Your task to perform on an android device: When is my next appointment? Image 0: 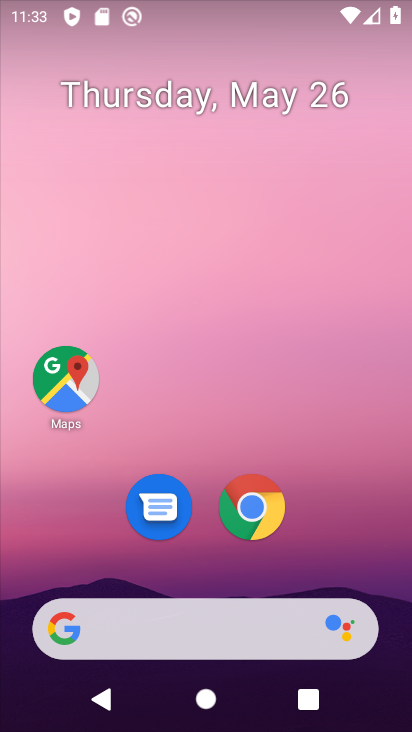
Step 0: drag from (351, 490) to (300, 56)
Your task to perform on an android device: When is my next appointment? Image 1: 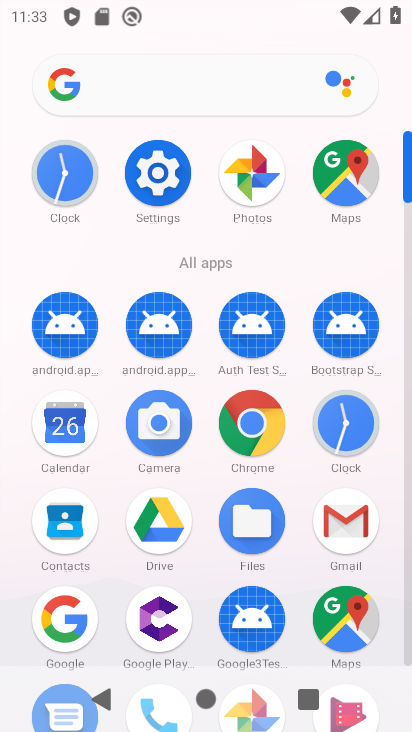
Step 1: click (70, 415)
Your task to perform on an android device: When is my next appointment? Image 2: 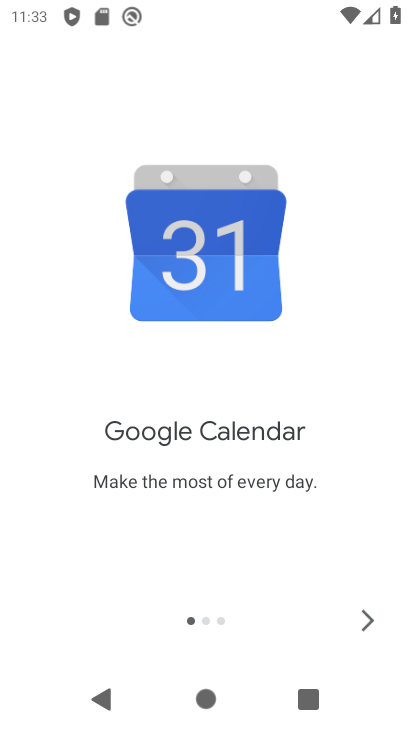
Step 2: click (371, 626)
Your task to perform on an android device: When is my next appointment? Image 3: 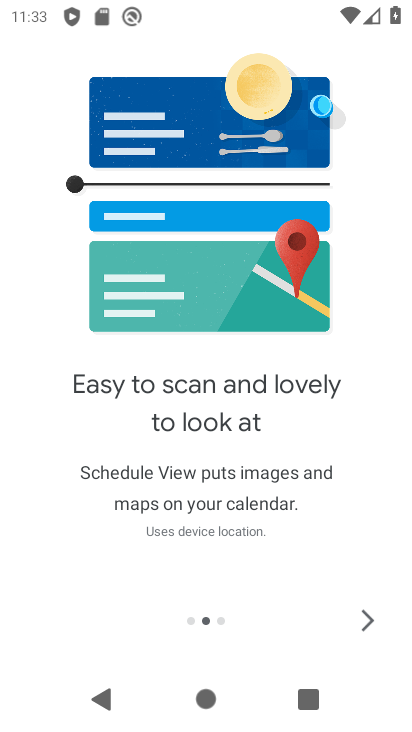
Step 3: click (365, 620)
Your task to perform on an android device: When is my next appointment? Image 4: 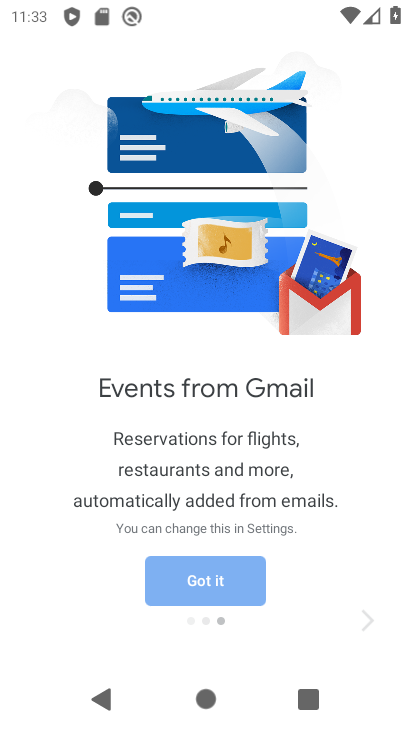
Step 4: click (365, 620)
Your task to perform on an android device: When is my next appointment? Image 5: 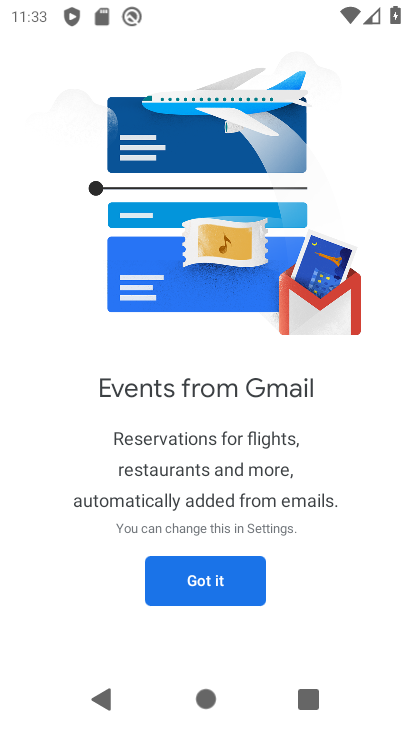
Step 5: click (365, 620)
Your task to perform on an android device: When is my next appointment? Image 6: 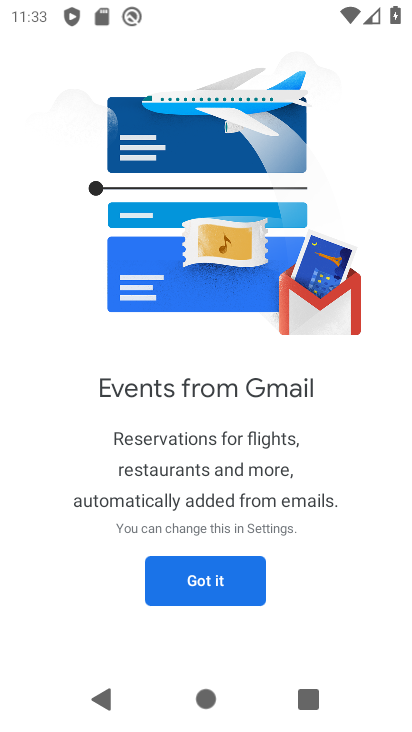
Step 6: click (206, 583)
Your task to perform on an android device: When is my next appointment? Image 7: 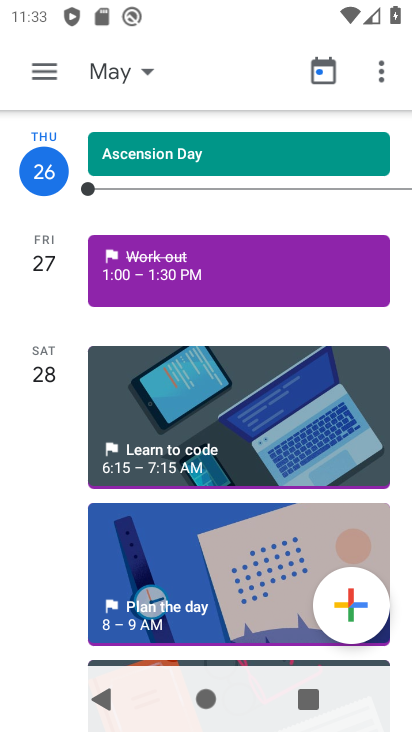
Step 7: click (101, 71)
Your task to perform on an android device: When is my next appointment? Image 8: 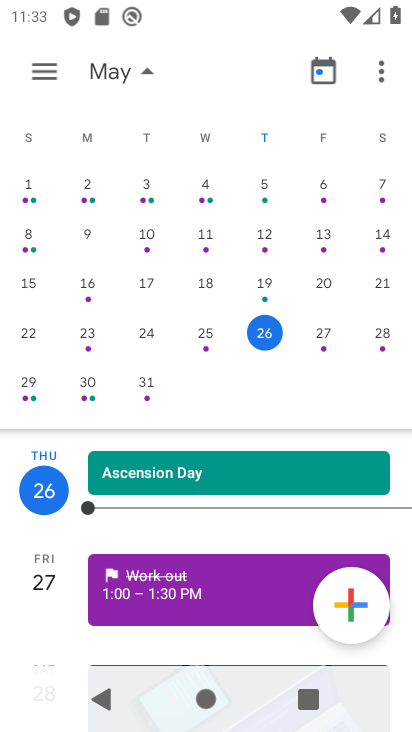
Step 8: click (122, 79)
Your task to perform on an android device: When is my next appointment? Image 9: 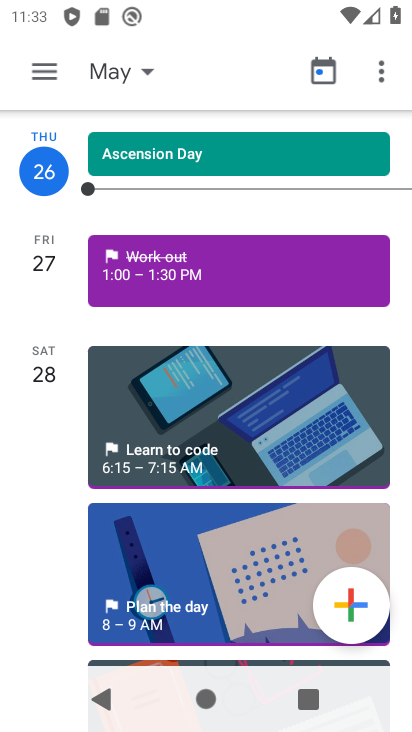
Step 9: task complete